Your task to perform on an android device: Open network settings Image 0: 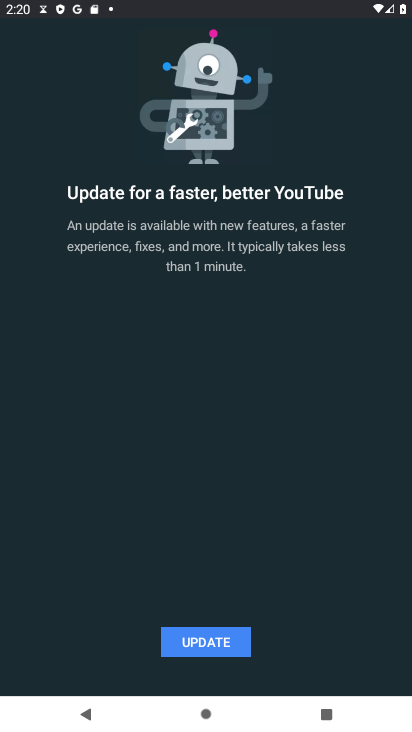
Step 0: press home button
Your task to perform on an android device: Open network settings Image 1: 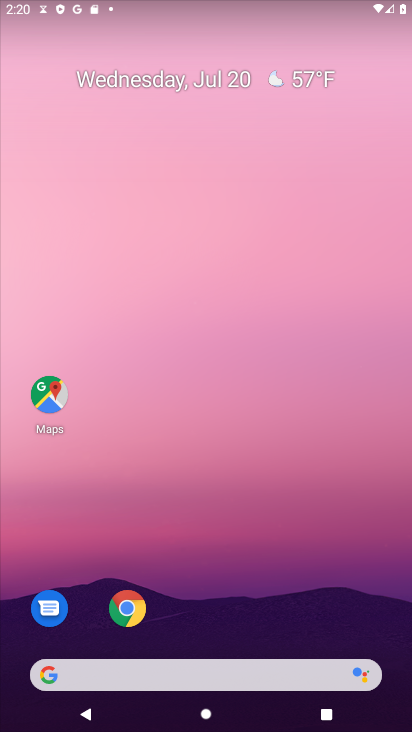
Step 1: drag from (234, 564) to (223, 45)
Your task to perform on an android device: Open network settings Image 2: 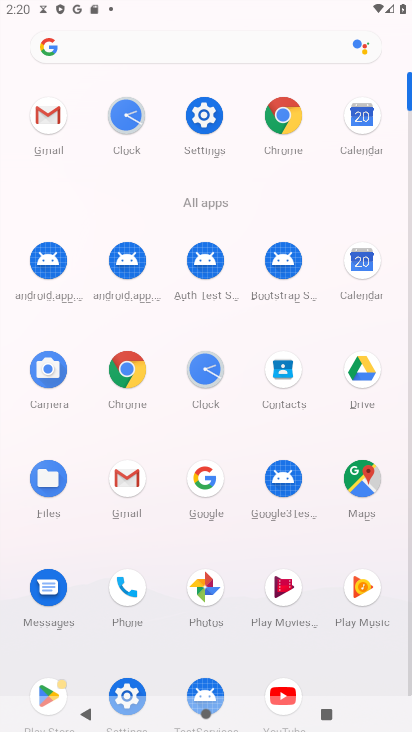
Step 2: click (204, 116)
Your task to perform on an android device: Open network settings Image 3: 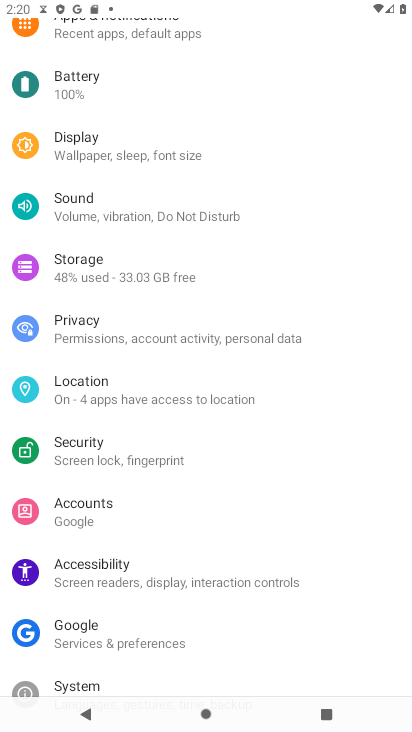
Step 3: drag from (193, 141) to (193, 485)
Your task to perform on an android device: Open network settings Image 4: 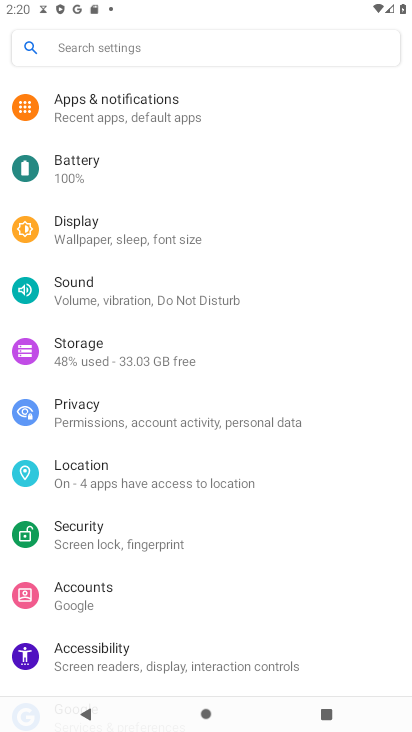
Step 4: drag from (187, 146) to (183, 566)
Your task to perform on an android device: Open network settings Image 5: 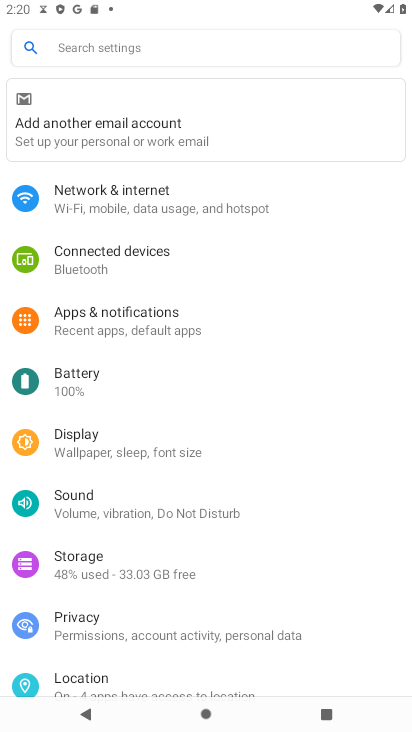
Step 5: click (133, 185)
Your task to perform on an android device: Open network settings Image 6: 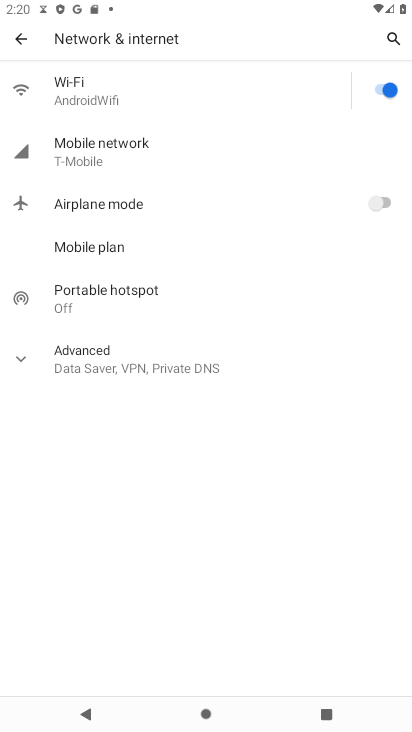
Step 6: task complete